Your task to perform on an android device: Open Amazon Image 0: 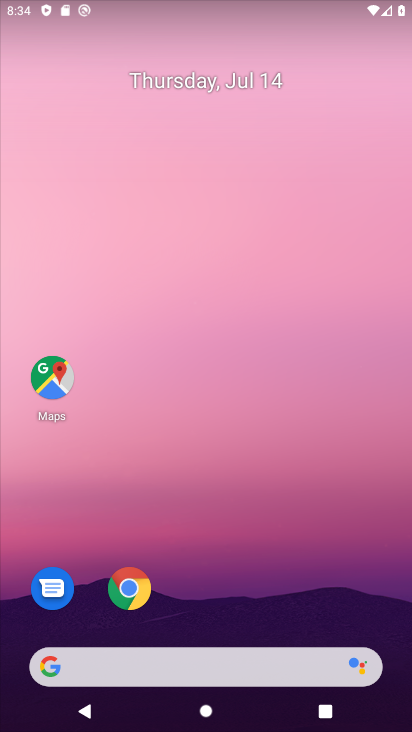
Step 0: click (129, 587)
Your task to perform on an android device: Open Amazon Image 1: 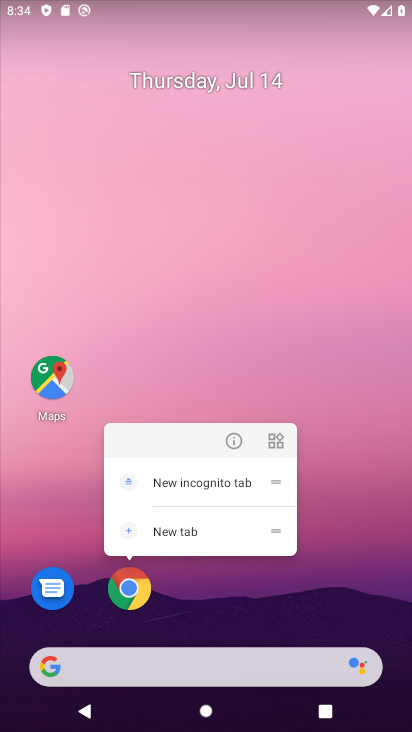
Step 1: click (131, 585)
Your task to perform on an android device: Open Amazon Image 2: 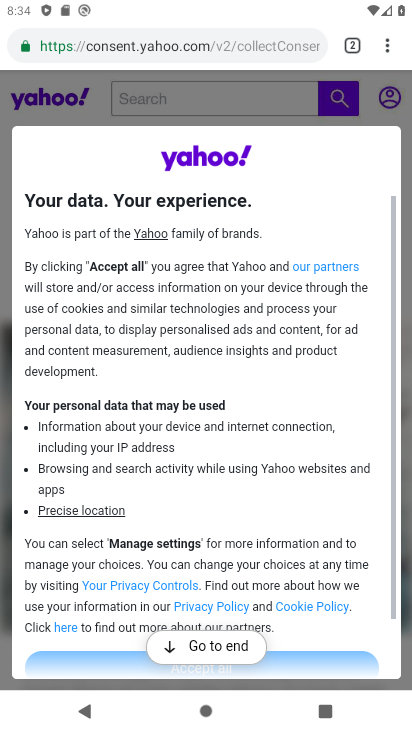
Step 2: press back button
Your task to perform on an android device: Open Amazon Image 3: 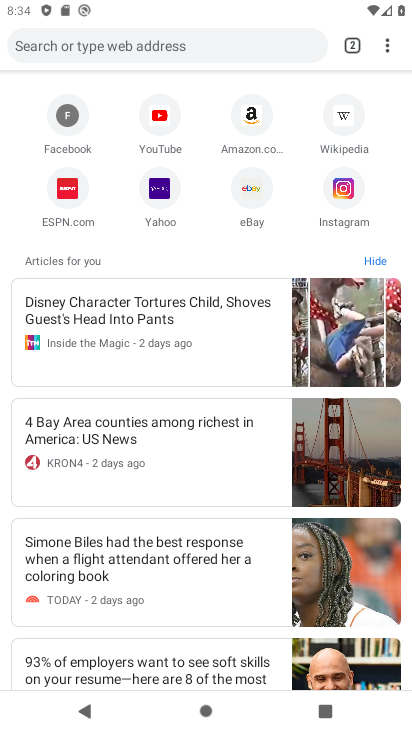
Step 3: click (249, 120)
Your task to perform on an android device: Open Amazon Image 4: 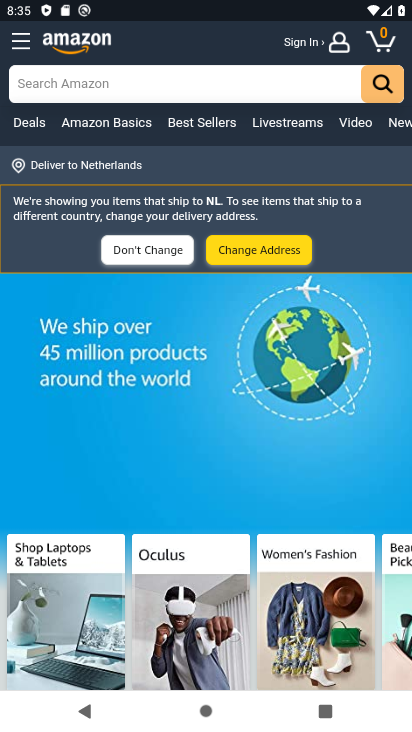
Step 4: task complete